Your task to perform on an android device: snooze an email in the gmail app Image 0: 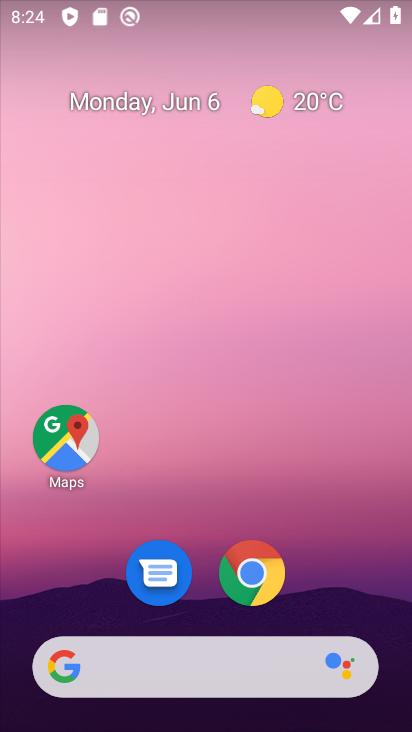
Step 0: drag from (196, 596) to (250, 55)
Your task to perform on an android device: snooze an email in the gmail app Image 1: 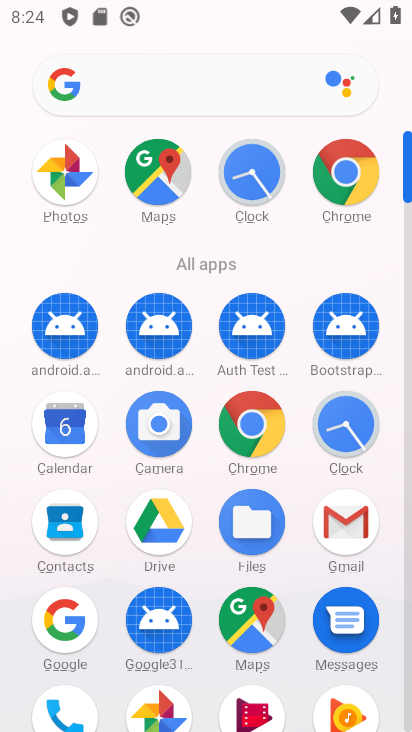
Step 1: click (350, 500)
Your task to perform on an android device: snooze an email in the gmail app Image 2: 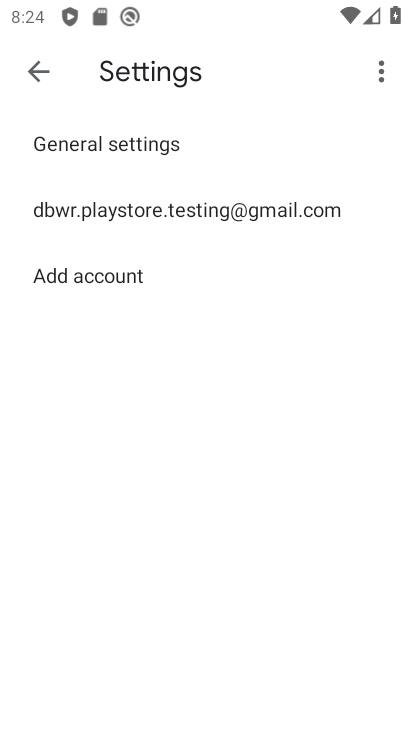
Step 2: click (39, 67)
Your task to perform on an android device: snooze an email in the gmail app Image 3: 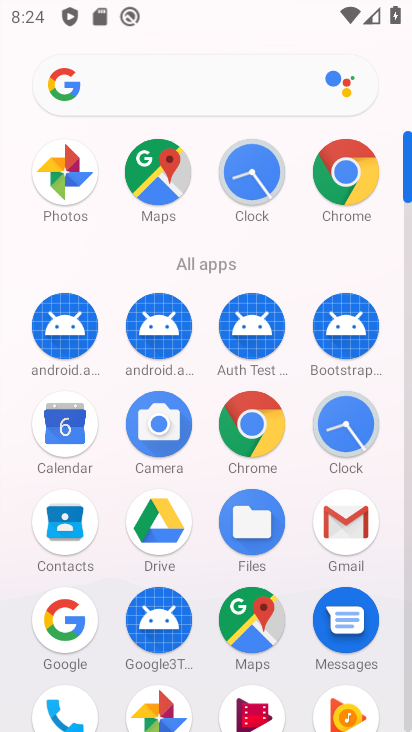
Step 3: click (347, 528)
Your task to perform on an android device: snooze an email in the gmail app Image 4: 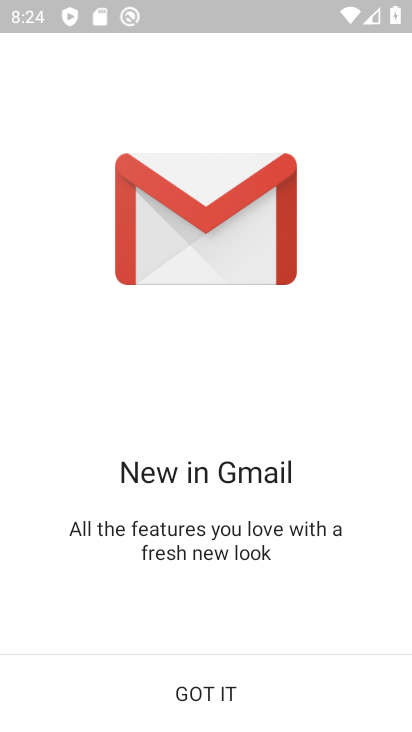
Step 4: click (220, 691)
Your task to perform on an android device: snooze an email in the gmail app Image 5: 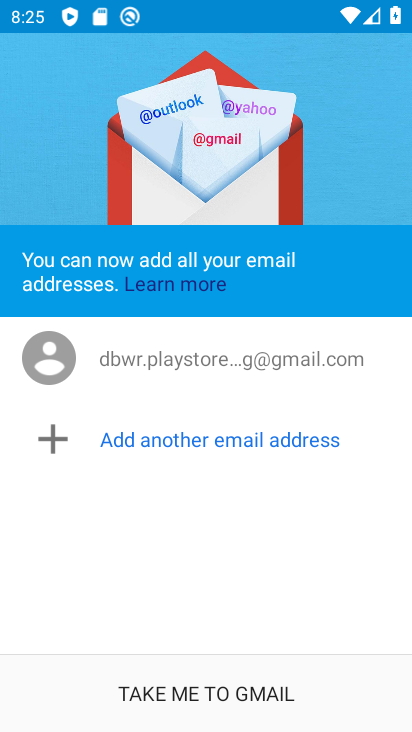
Step 5: click (219, 698)
Your task to perform on an android device: snooze an email in the gmail app Image 6: 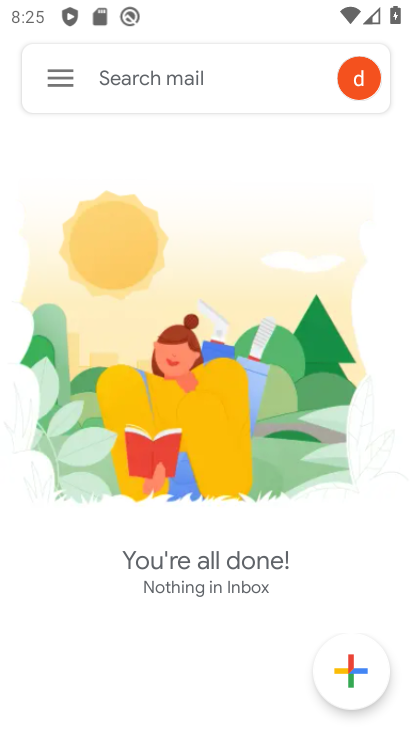
Step 6: click (36, 100)
Your task to perform on an android device: snooze an email in the gmail app Image 7: 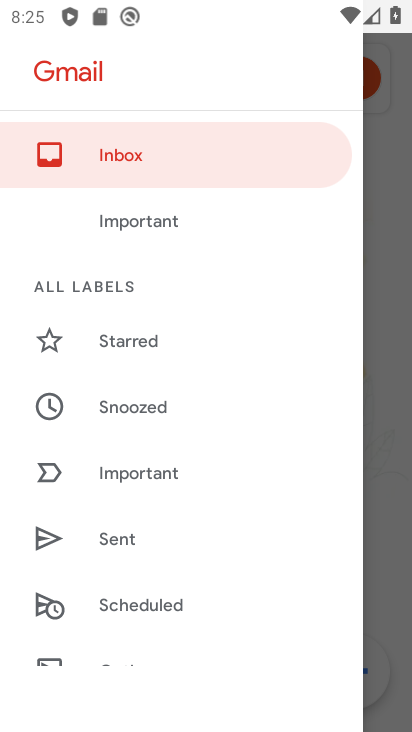
Step 7: drag from (190, 580) to (249, 209)
Your task to perform on an android device: snooze an email in the gmail app Image 8: 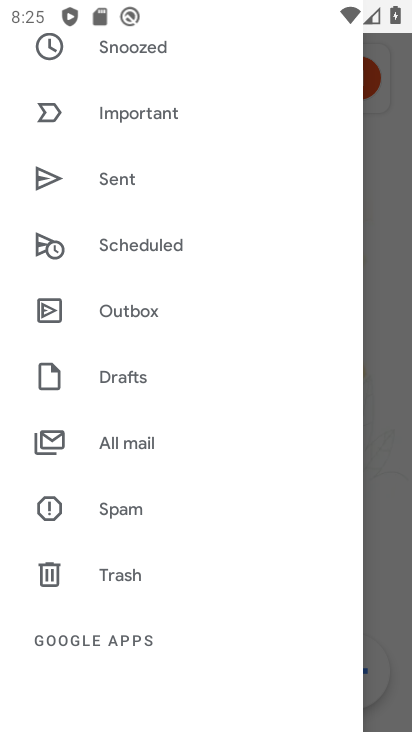
Step 8: click (133, 439)
Your task to perform on an android device: snooze an email in the gmail app Image 9: 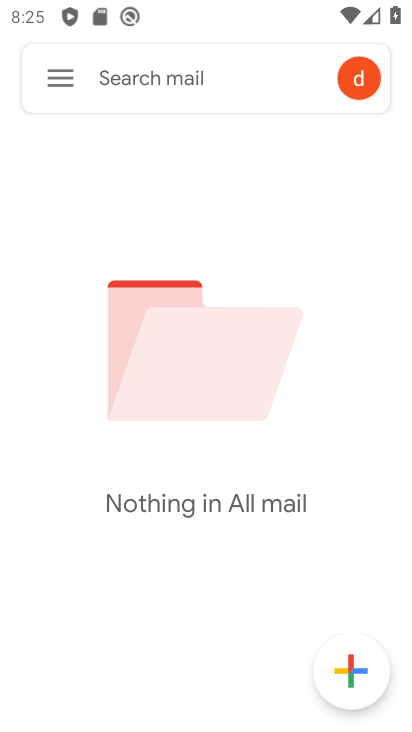
Step 9: task complete